Your task to perform on an android device: find photos in the google photos app Image 0: 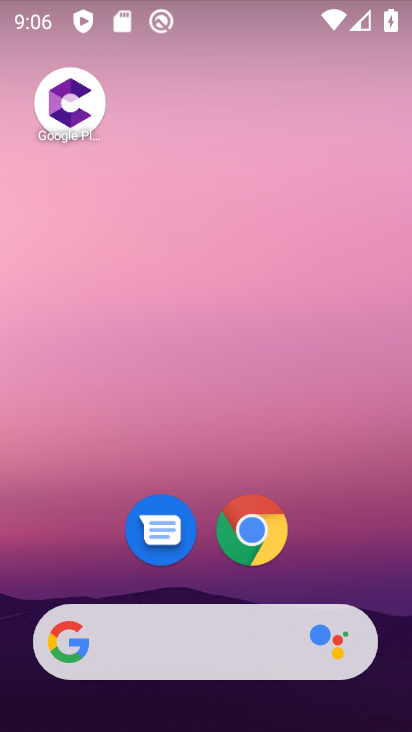
Step 0: drag from (363, 578) to (390, 0)
Your task to perform on an android device: find photos in the google photos app Image 1: 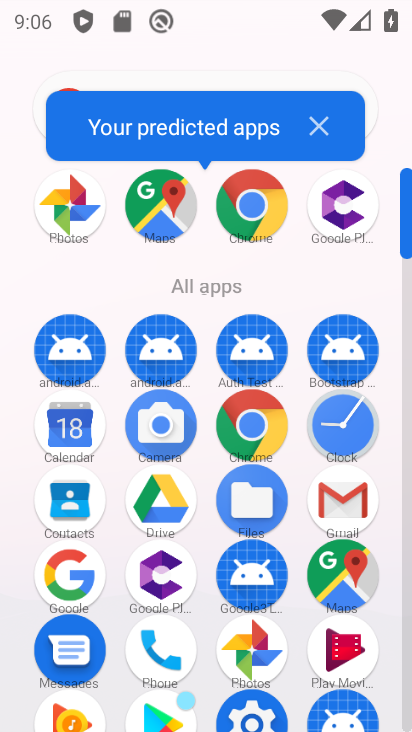
Step 1: click (246, 642)
Your task to perform on an android device: find photos in the google photos app Image 2: 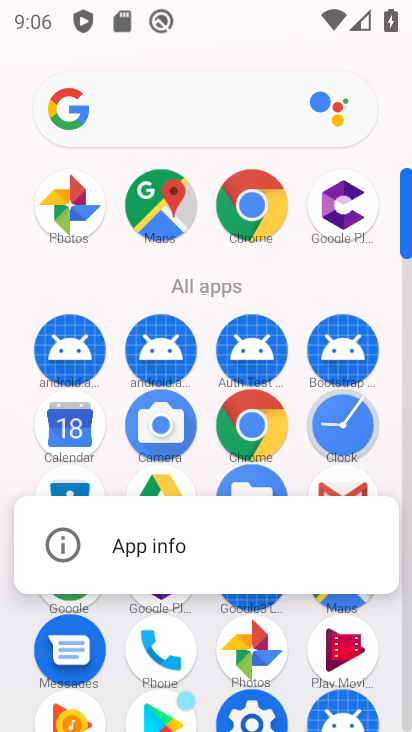
Step 2: click (63, 204)
Your task to perform on an android device: find photos in the google photos app Image 3: 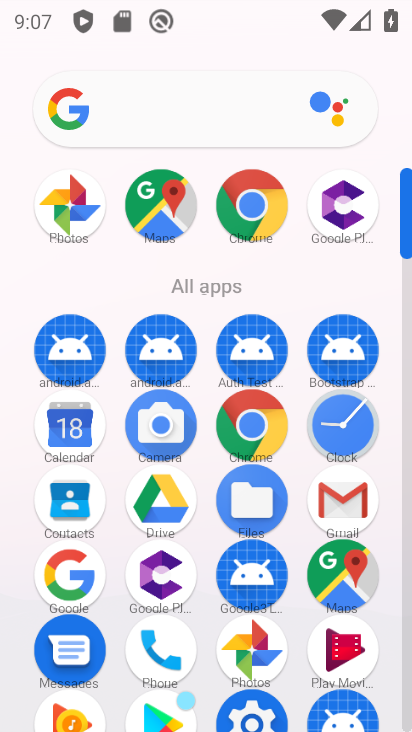
Step 3: click (66, 201)
Your task to perform on an android device: find photos in the google photos app Image 4: 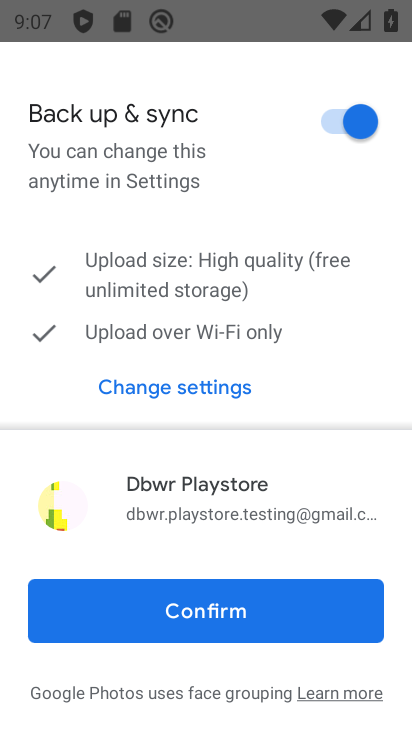
Step 4: click (199, 610)
Your task to perform on an android device: find photos in the google photos app Image 5: 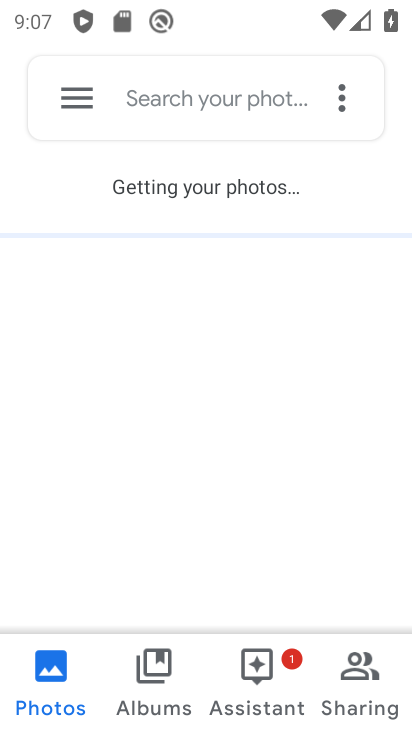
Step 5: click (60, 668)
Your task to perform on an android device: find photos in the google photos app Image 6: 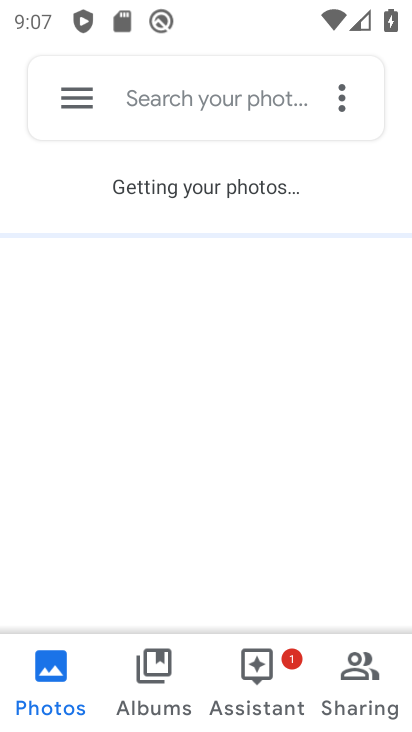
Step 6: click (46, 683)
Your task to perform on an android device: find photos in the google photos app Image 7: 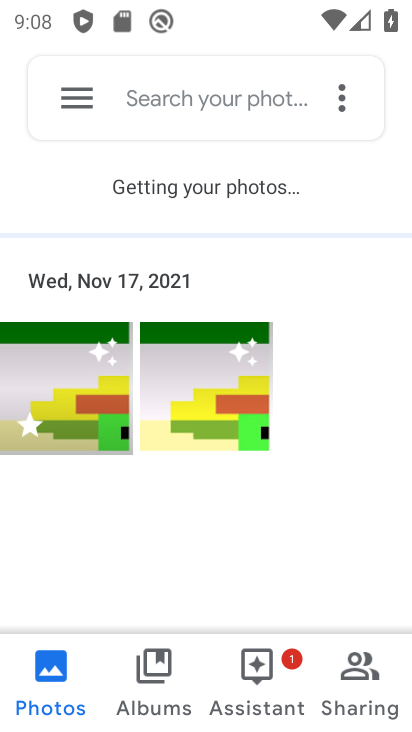
Step 7: task complete